Your task to perform on an android device: Open privacy settings Image 0: 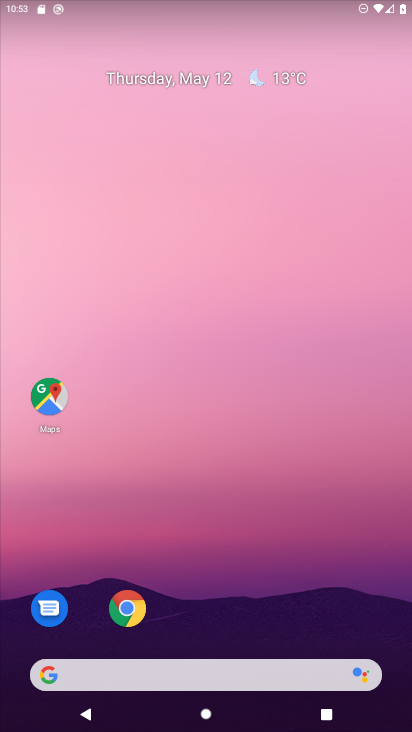
Step 0: click (129, 608)
Your task to perform on an android device: Open privacy settings Image 1: 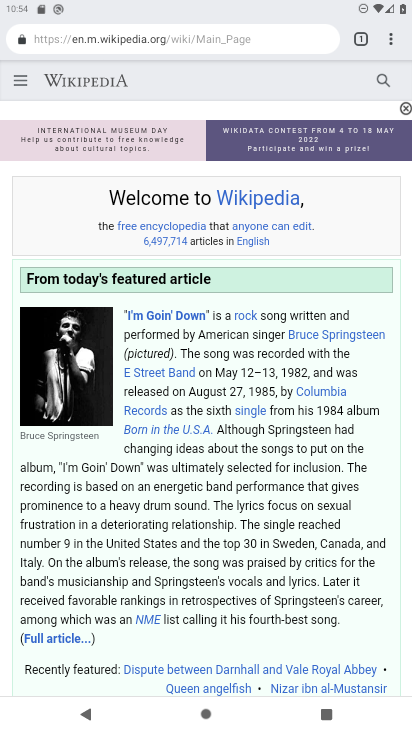
Step 1: click (385, 43)
Your task to perform on an android device: Open privacy settings Image 2: 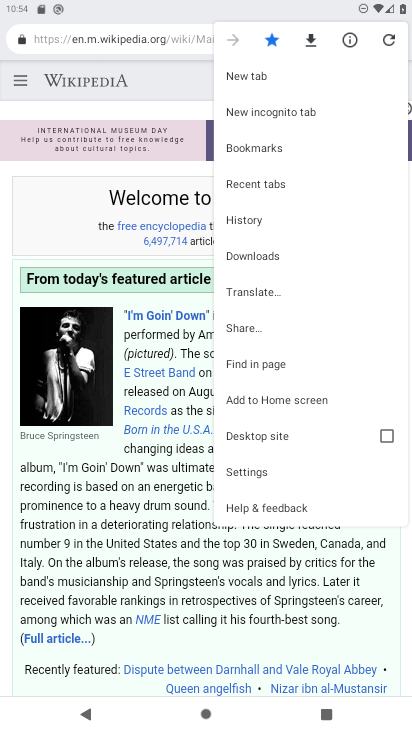
Step 2: click (257, 475)
Your task to perform on an android device: Open privacy settings Image 3: 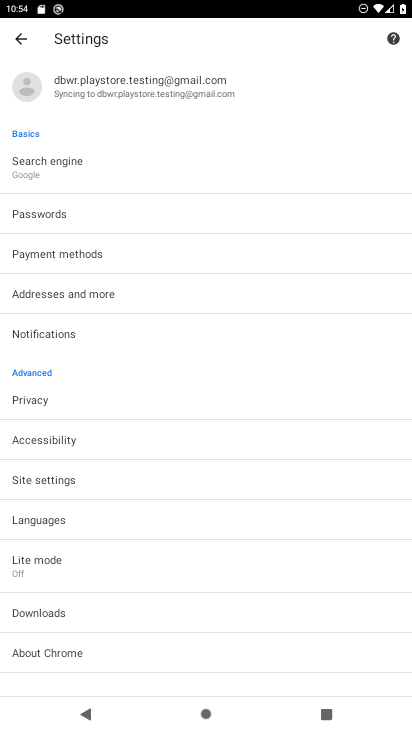
Step 3: click (91, 403)
Your task to perform on an android device: Open privacy settings Image 4: 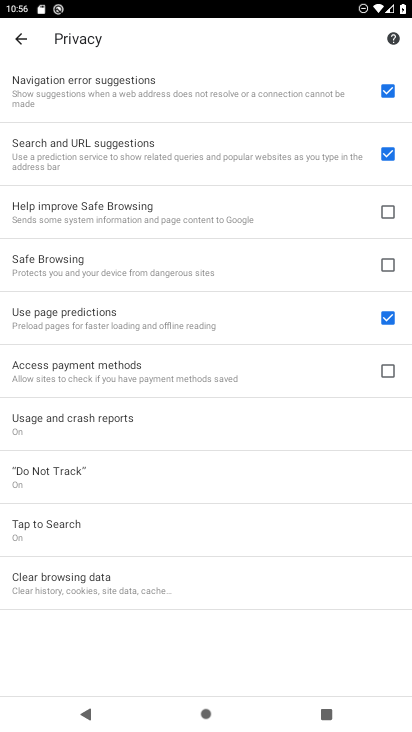
Step 4: task complete